Your task to perform on an android device: Search for "rayovac triple a" on target.com, select the first entry, add it to the cart, then select checkout. Image 0: 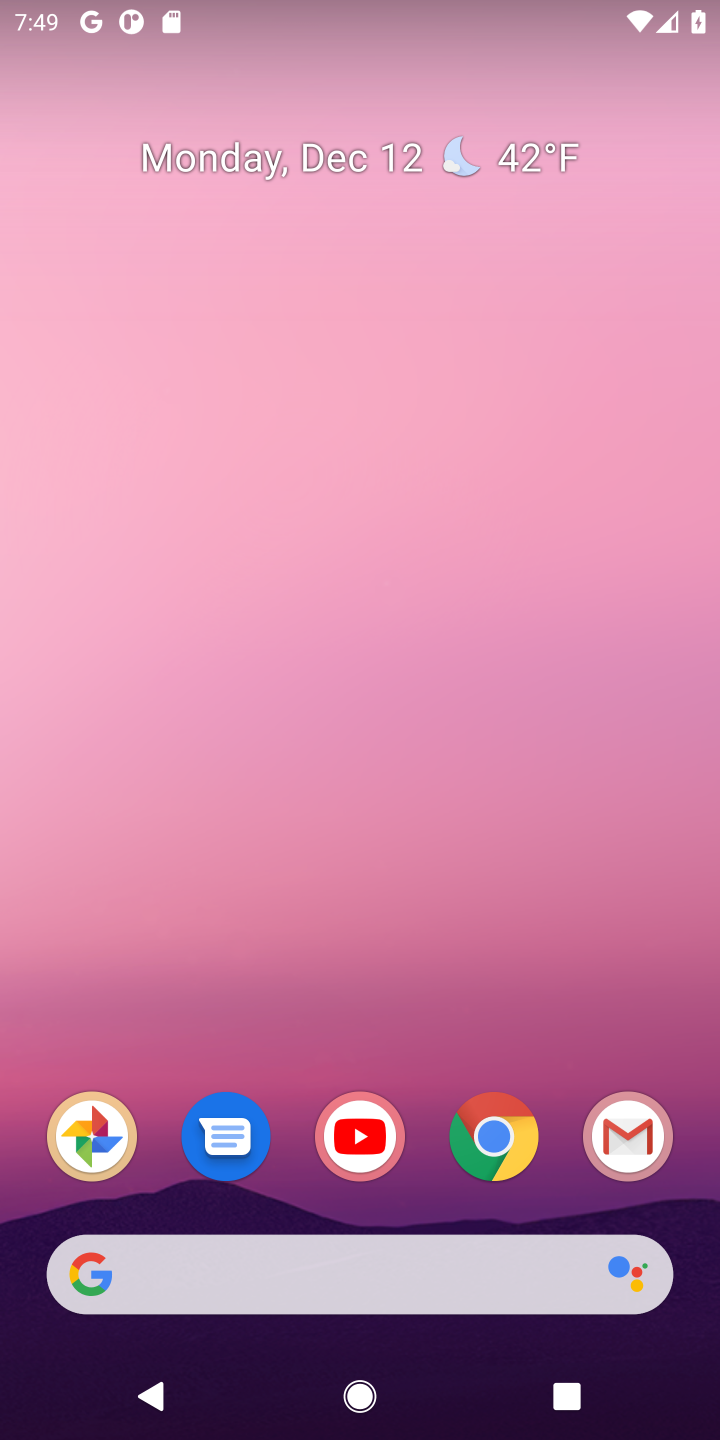
Step 0: click (476, 1149)
Your task to perform on an android device: Search for "rayovac triple a" on target.com, select the first entry, add it to the cart, then select checkout. Image 1: 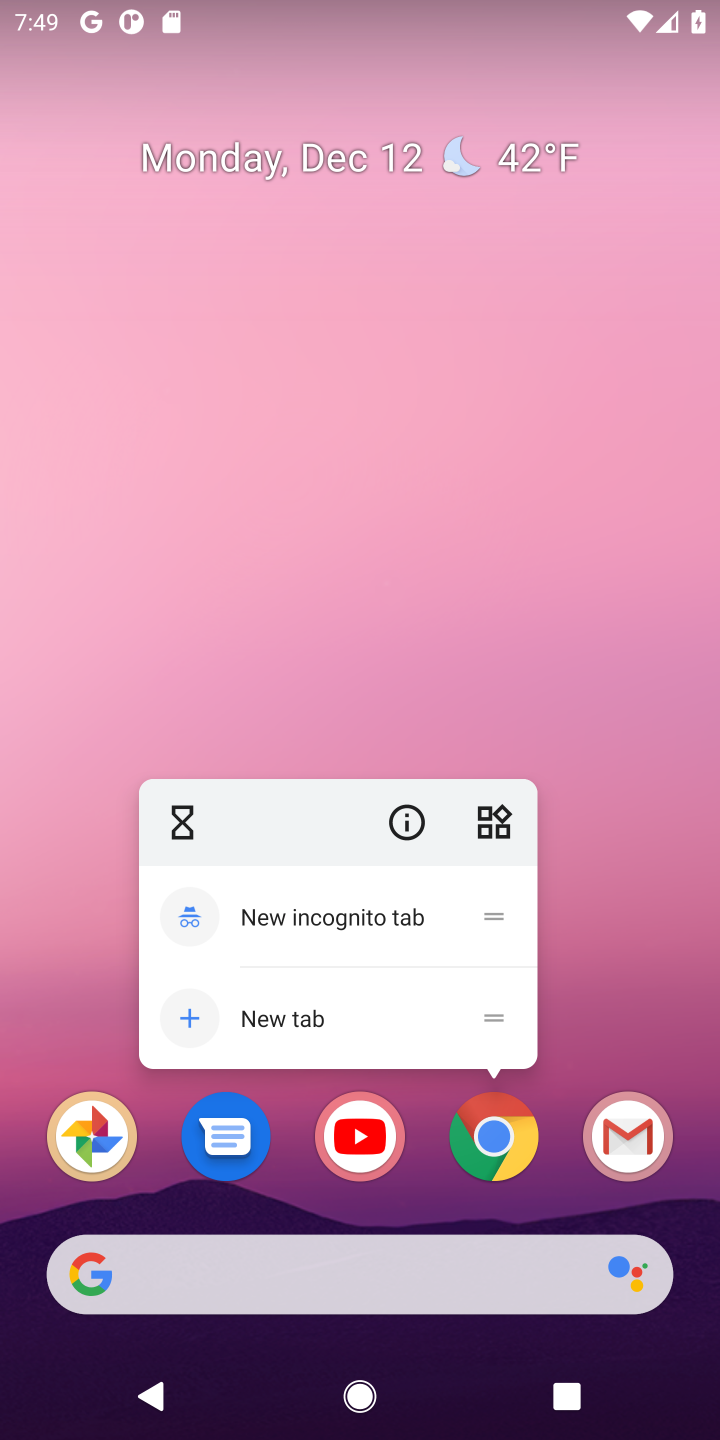
Step 1: click (500, 1172)
Your task to perform on an android device: Search for "rayovac triple a" on target.com, select the first entry, add it to the cart, then select checkout. Image 2: 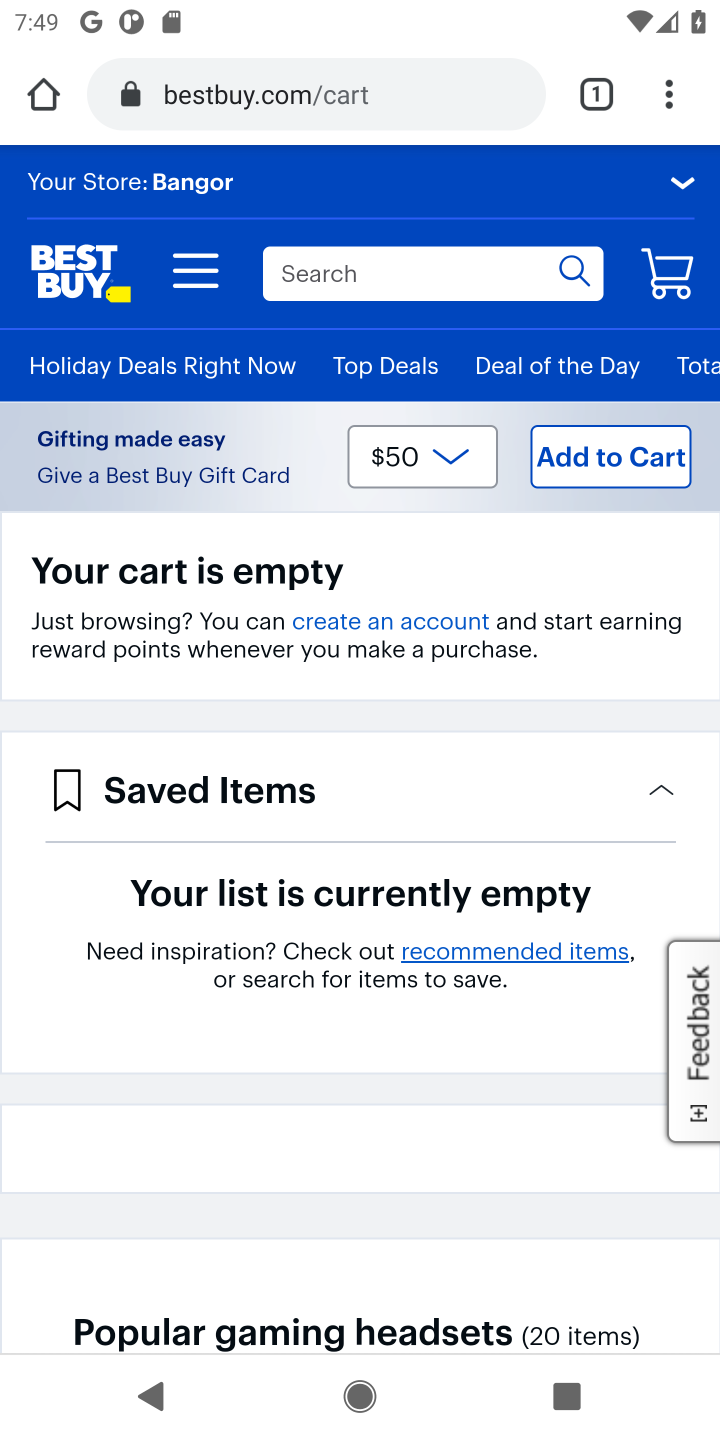
Step 2: click (324, 99)
Your task to perform on an android device: Search for "rayovac triple a" on target.com, select the first entry, add it to the cart, then select checkout. Image 3: 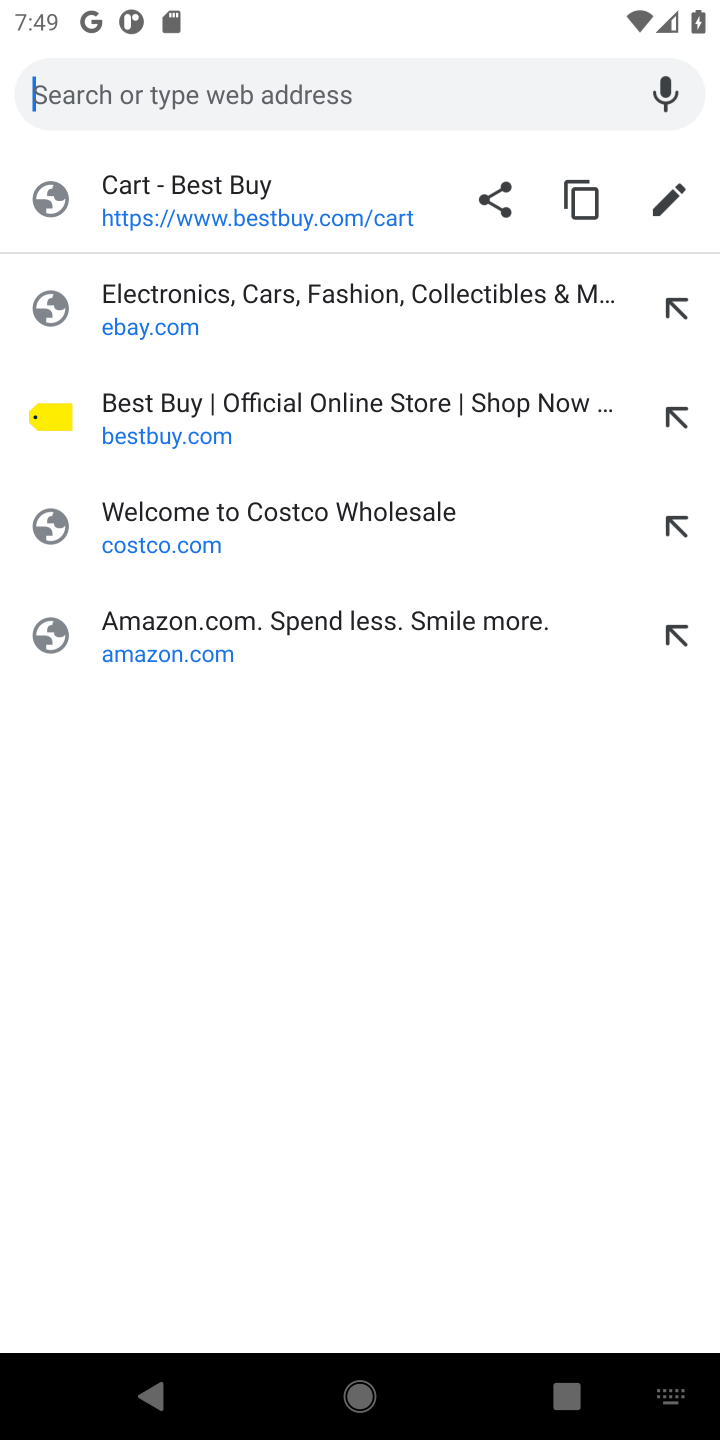
Step 3: type "target.com"
Your task to perform on an android device: Search for "rayovac triple a" on target.com, select the first entry, add it to the cart, then select checkout. Image 4: 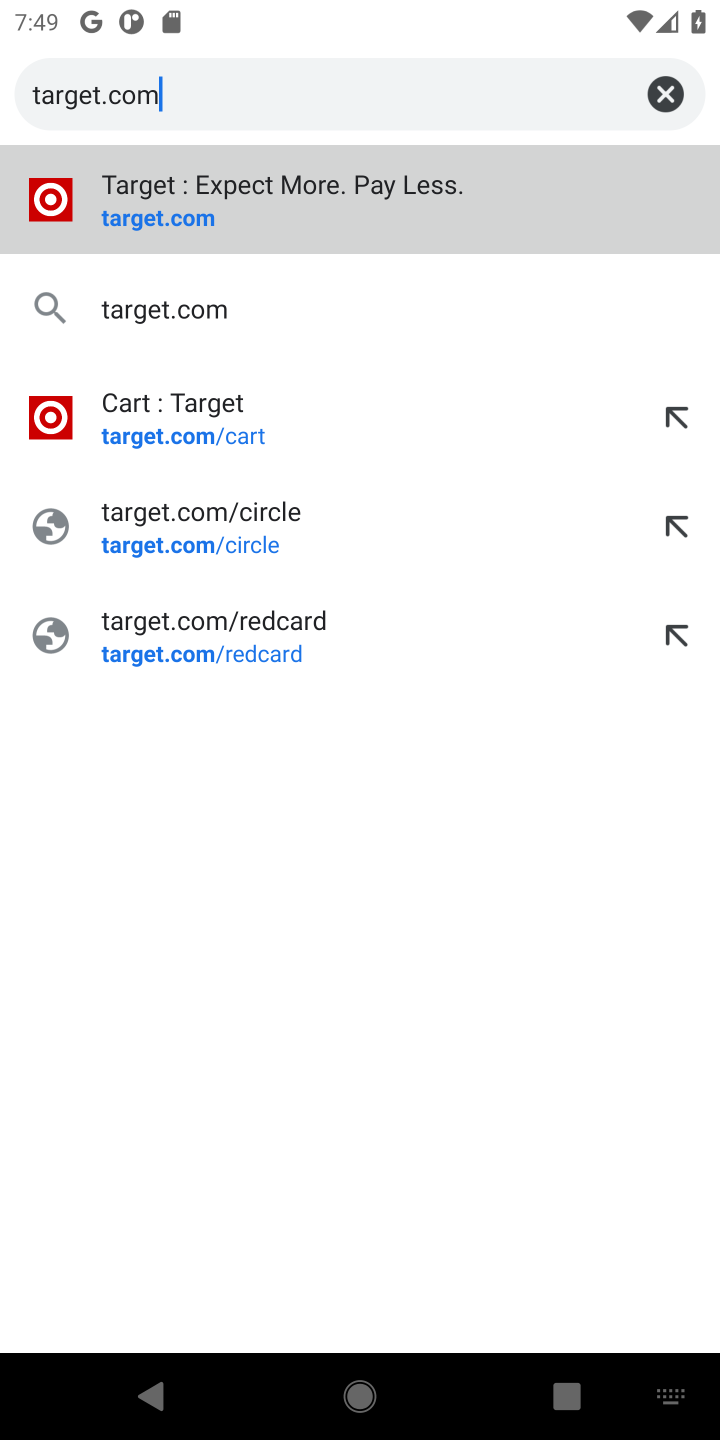
Step 4: click (177, 229)
Your task to perform on an android device: Search for "rayovac triple a" on target.com, select the first entry, add it to the cart, then select checkout. Image 5: 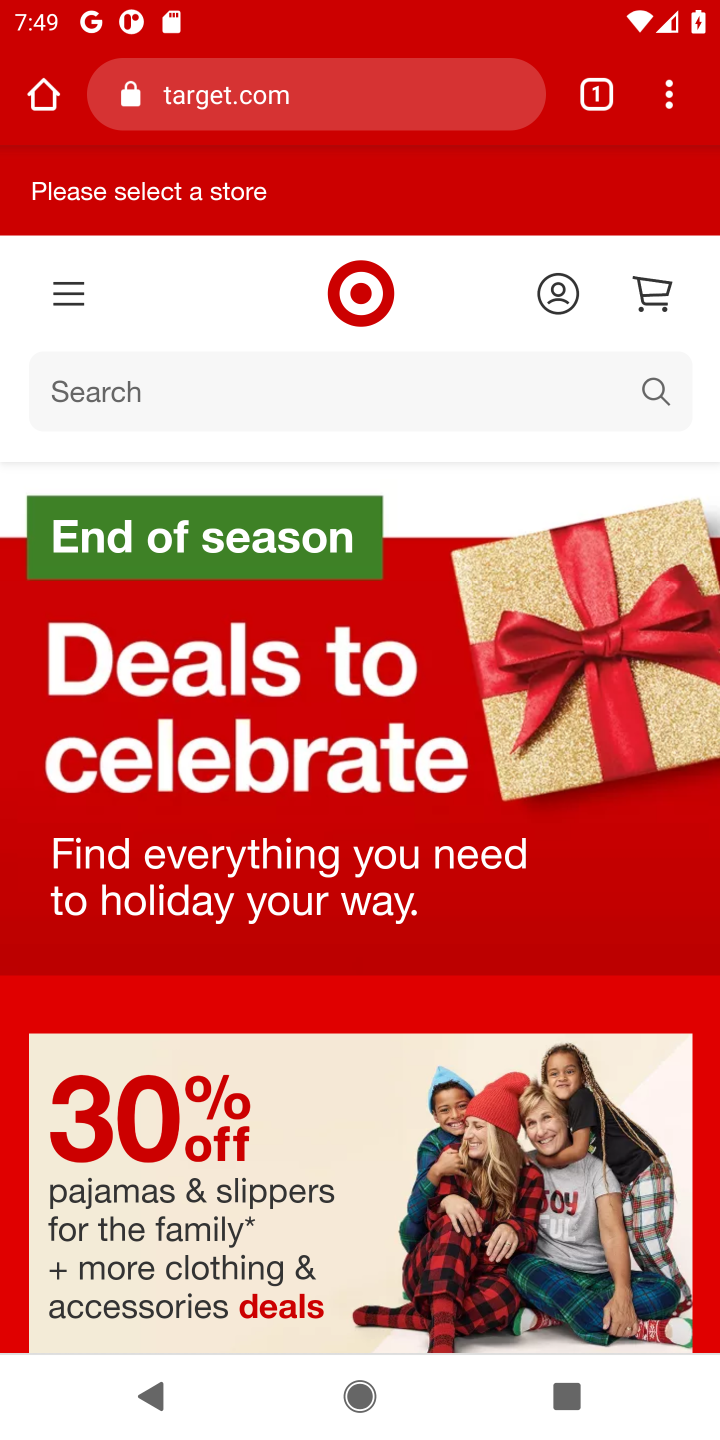
Step 5: click (87, 393)
Your task to perform on an android device: Search for "rayovac triple a" on target.com, select the first entry, add it to the cart, then select checkout. Image 6: 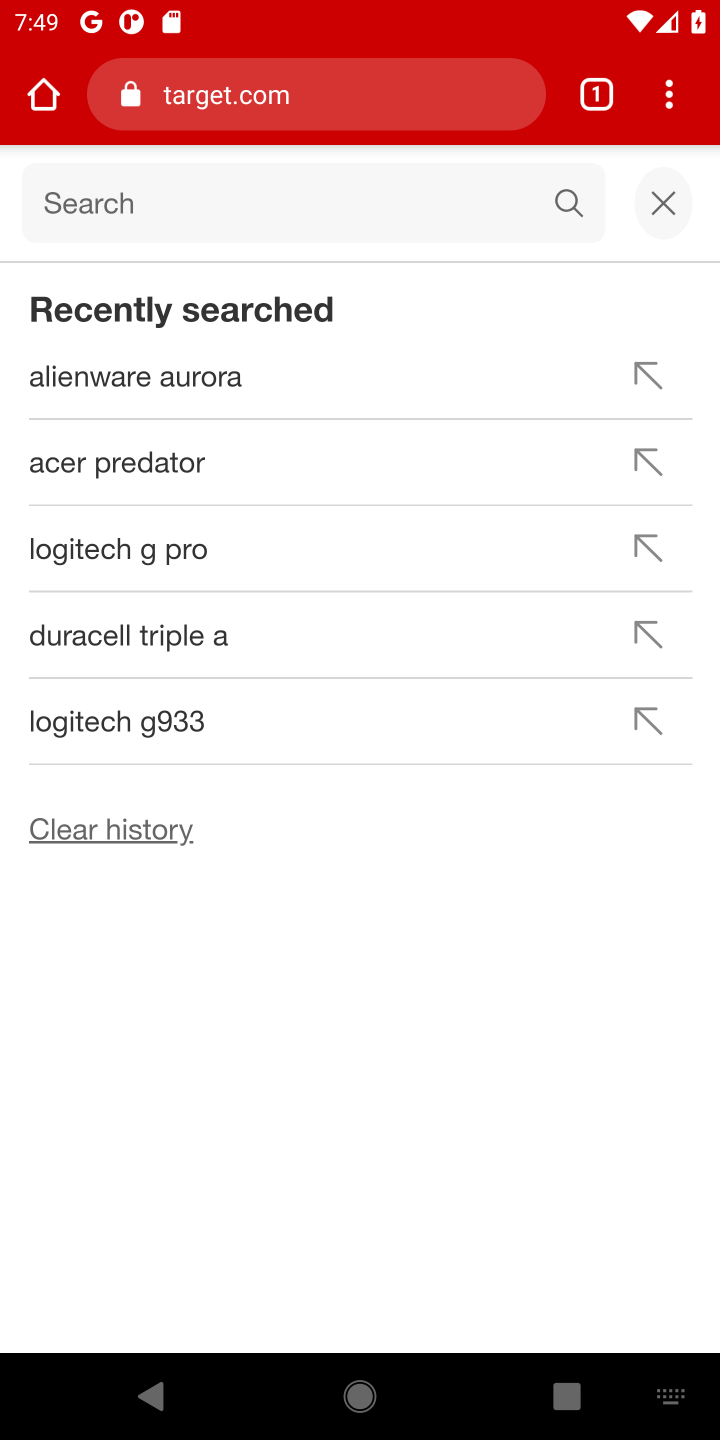
Step 6: type "rayovac triple a"
Your task to perform on an android device: Search for "rayovac triple a" on target.com, select the first entry, add it to the cart, then select checkout. Image 7: 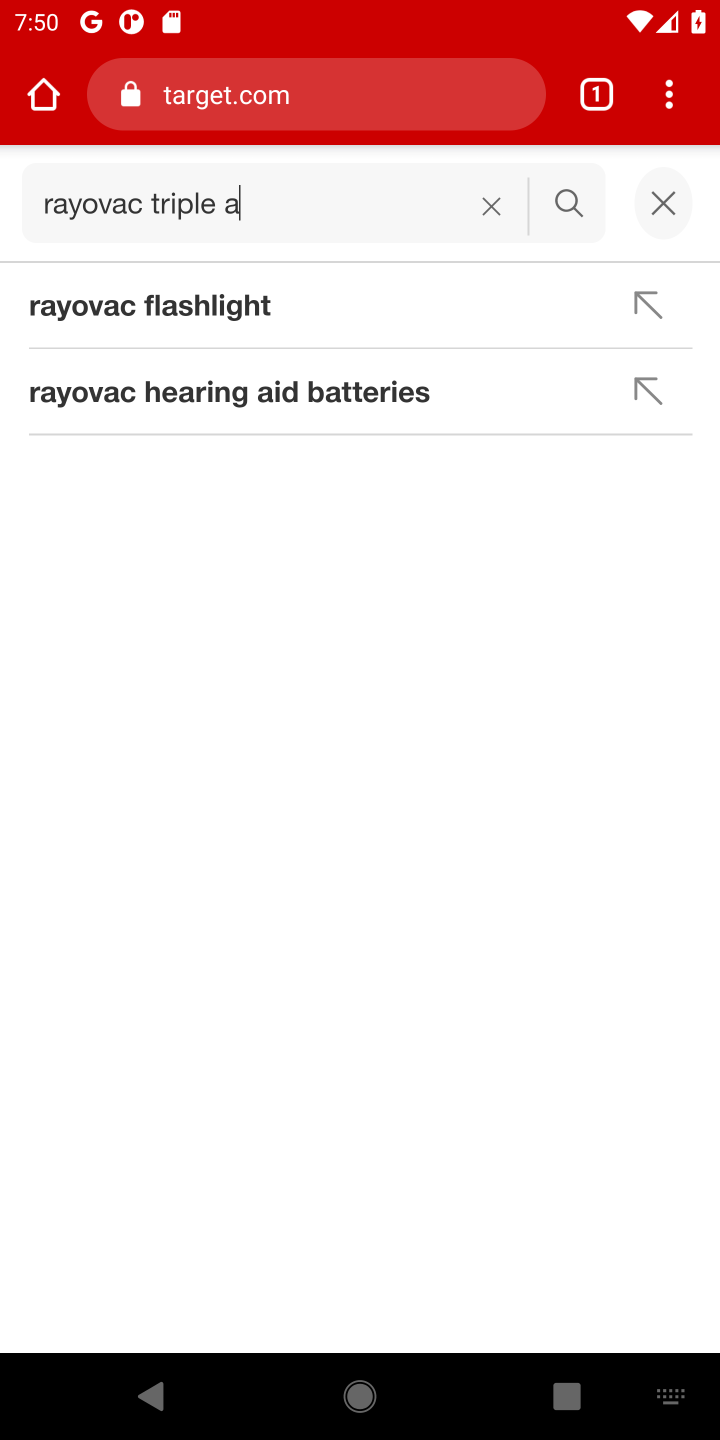
Step 7: click (565, 205)
Your task to perform on an android device: Search for "rayovac triple a" on target.com, select the first entry, add it to the cart, then select checkout. Image 8: 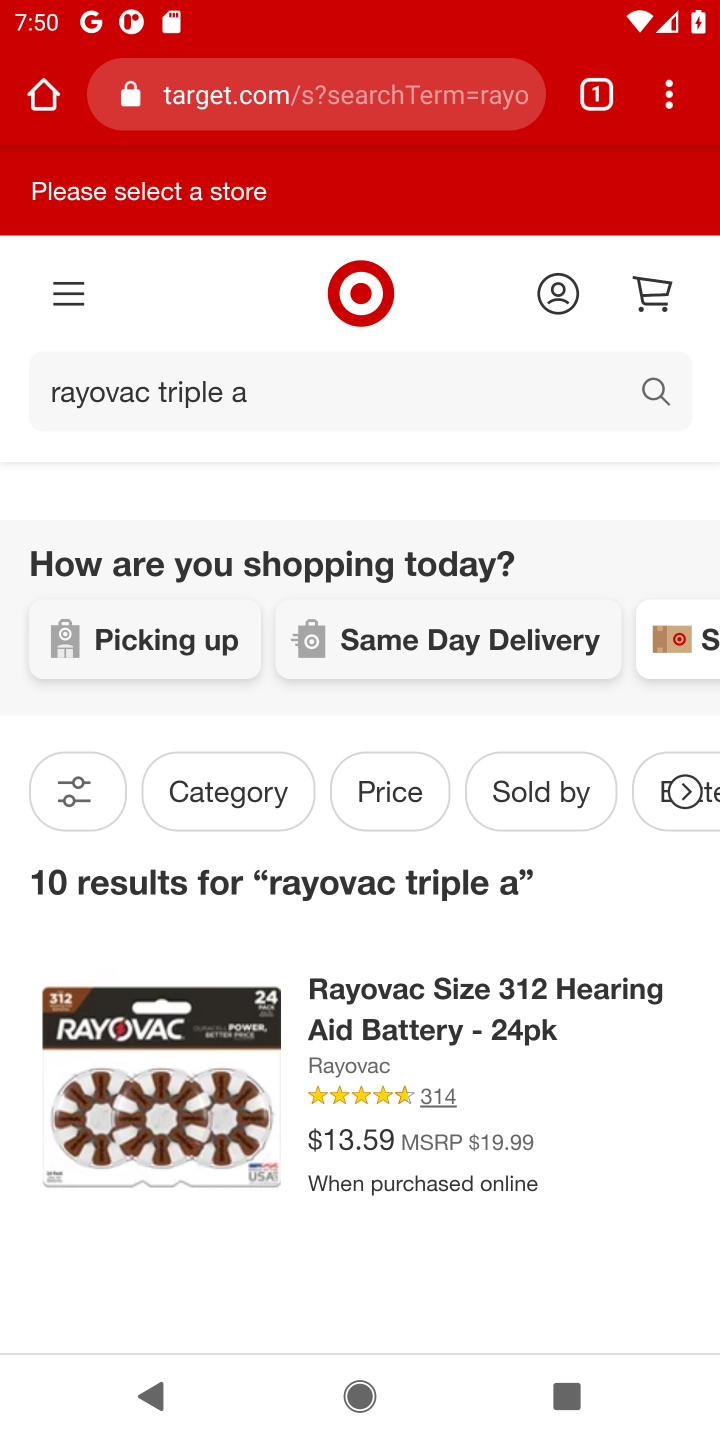
Step 8: drag from (341, 1016) to (377, 607)
Your task to perform on an android device: Search for "rayovac triple a" on target.com, select the first entry, add it to the cart, then select checkout. Image 9: 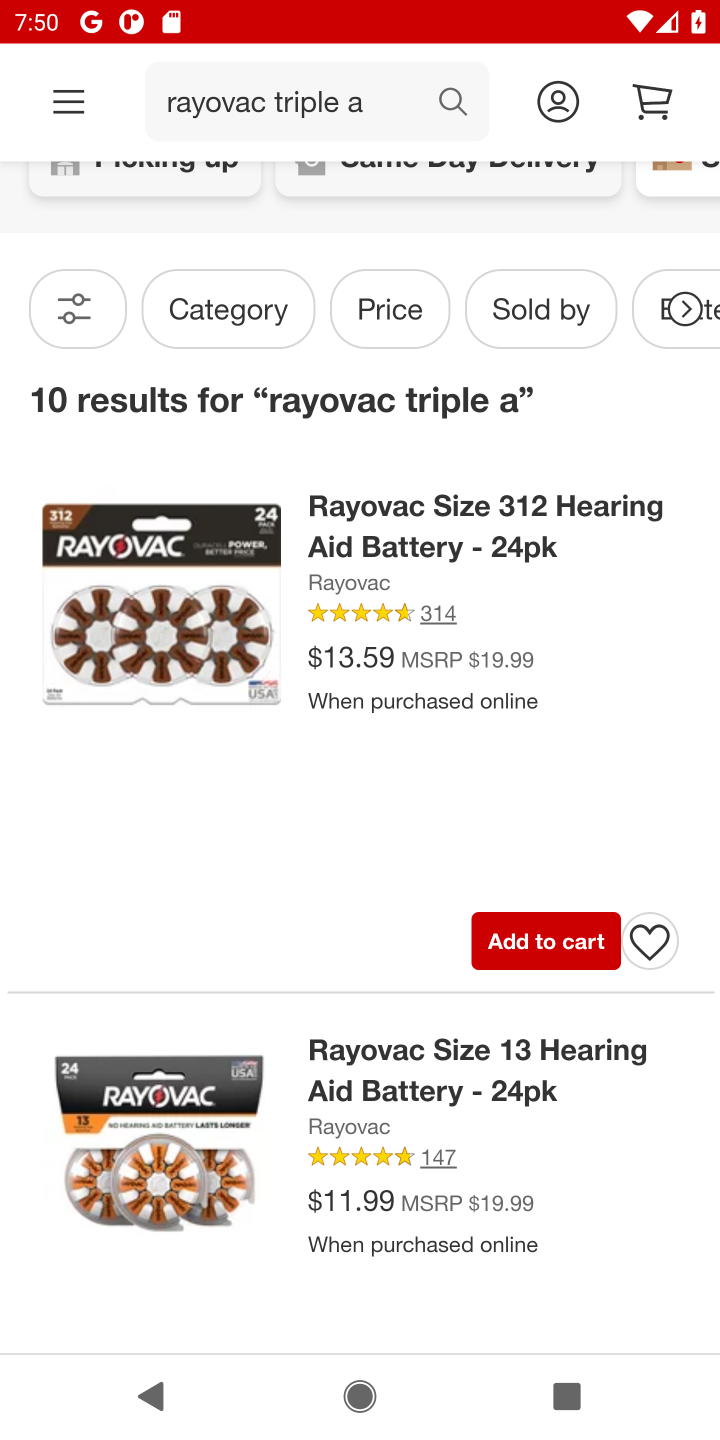
Step 9: click (470, 538)
Your task to perform on an android device: Search for "rayovac triple a" on target.com, select the first entry, add it to the cart, then select checkout. Image 10: 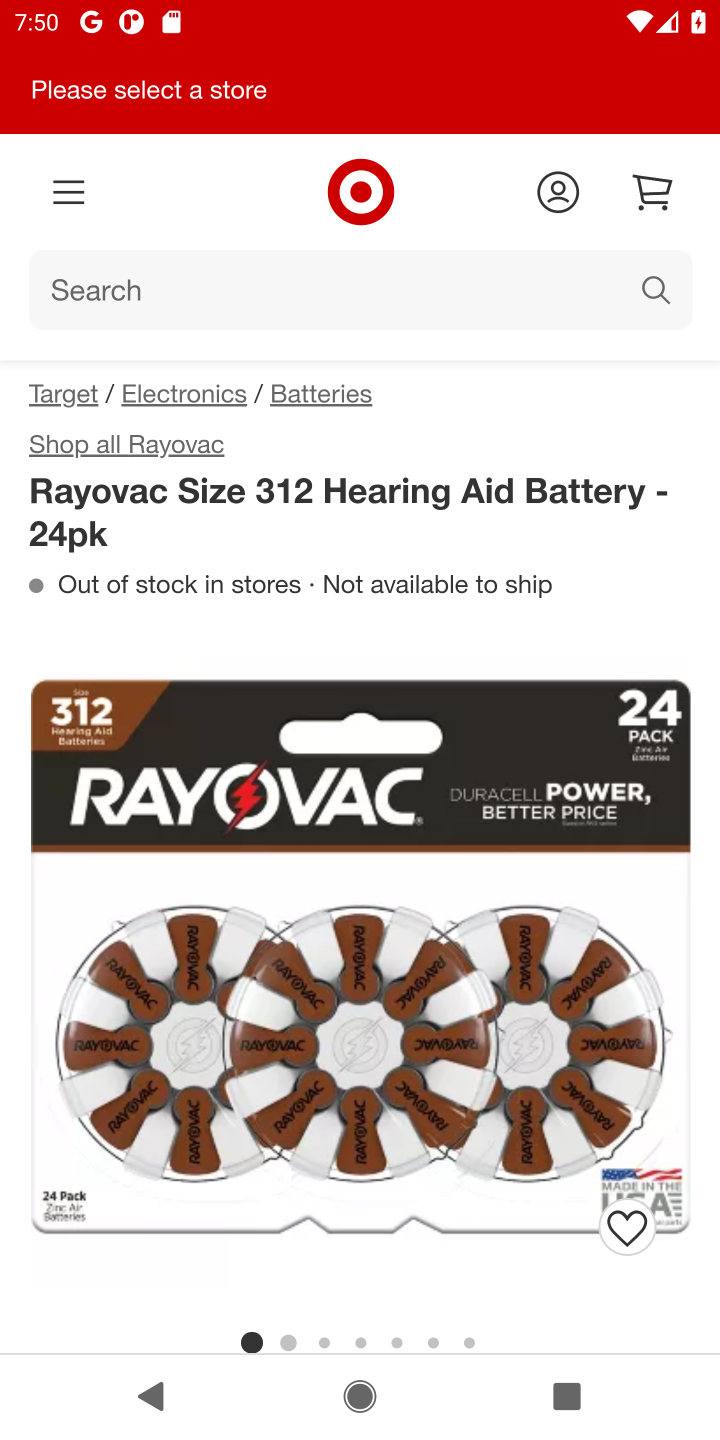
Step 10: task complete